Your task to perform on an android device: Open calendar and show me the first week of next month Image 0: 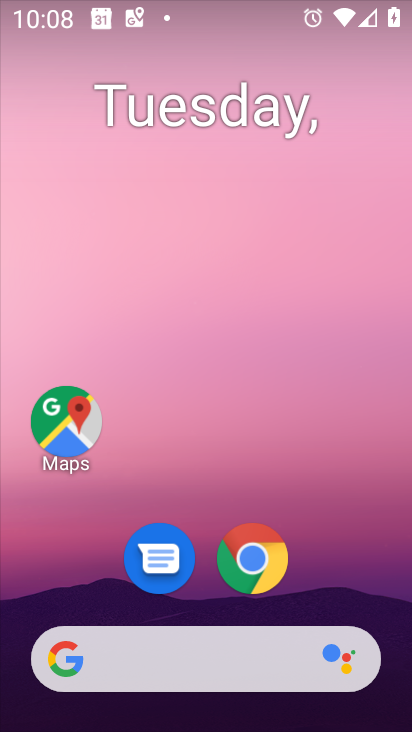
Step 0: drag from (318, 654) to (147, 282)
Your task to perform on an android device: Open calendar and show me the first week of next month Image 1: 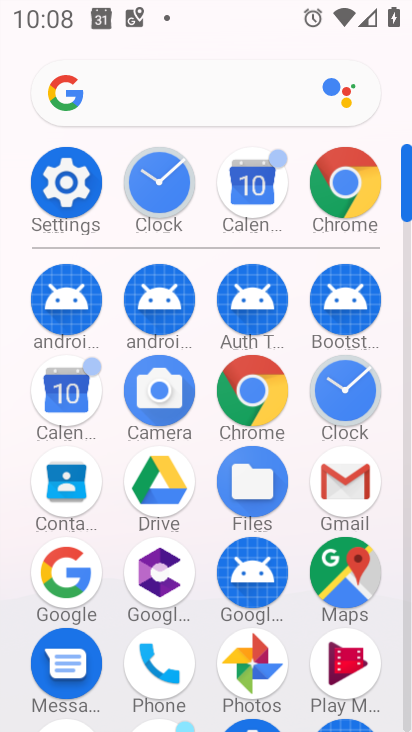
Step 1: click (68, 407)
Your task to perform on an android device: Open calendar and show me the first week of next month Image 2: 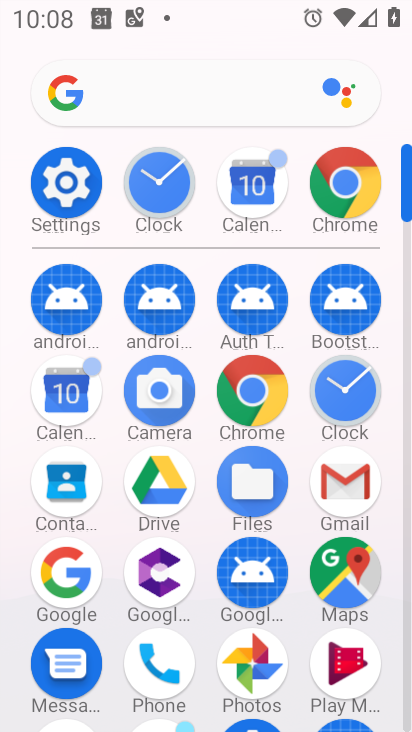
Step 2: click (66, 404)
Your task to perform on an android device: Open calendar and show me the first week of next month Image 3: 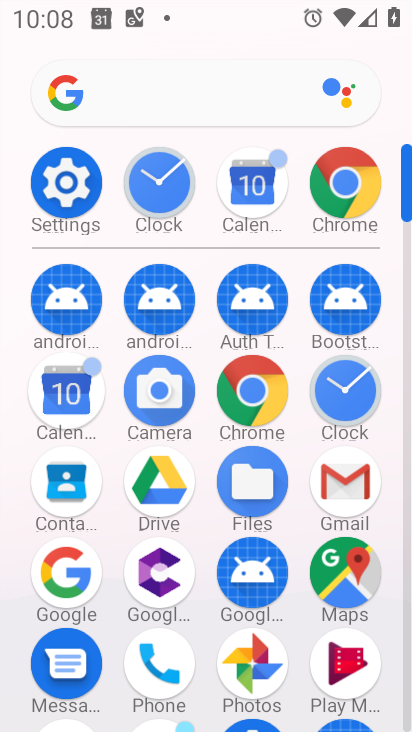
Step 3: click (66, 401)
Your task to perform on an android device: Open calendar and show me the first week of next month Image 4: 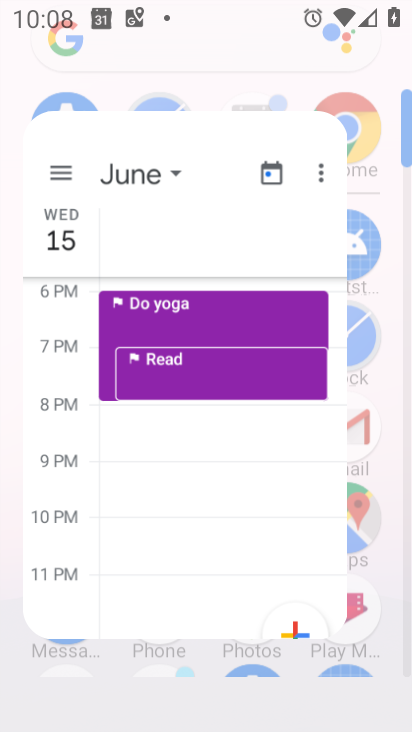
Step 4: click (67, 397)
Your task to perform on an android device: Open calendar and show me the first week of next month Image 5: 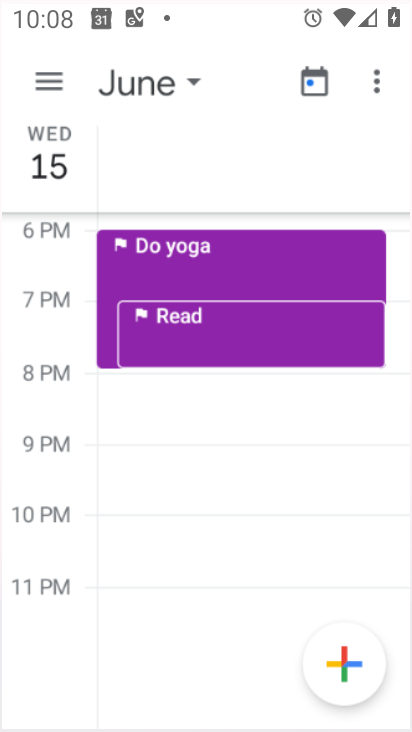
Step 5: click (67, 396)
Your task to perform on an android device: Open calendar and show me the first week of next month Image 6: 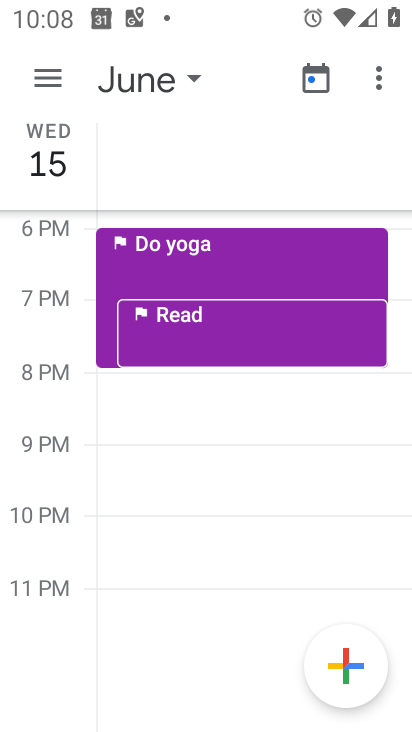
Step 6: click (175, 80)
Your task to perform on an android device: Open calendar and show me the first week of next month Image 7: 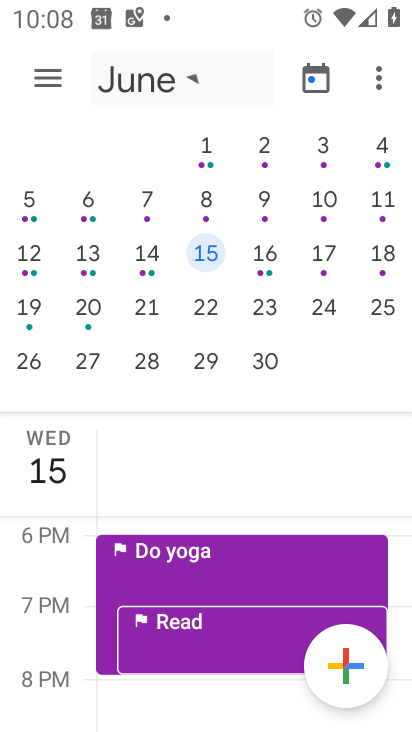
Step 7: click (178, 83)
Your task to perform on an android device: Open calendar and show me the first week of next month Image 8: 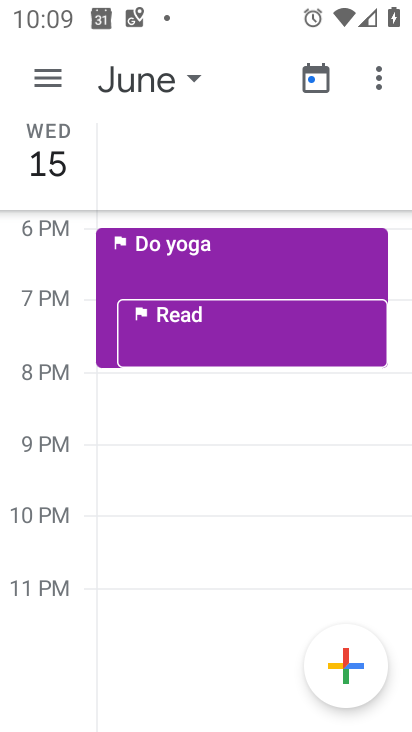
Step 8: click (200, 78)
Your task to perform on an android device: Open calendar and show me the first week of next month Image 9: 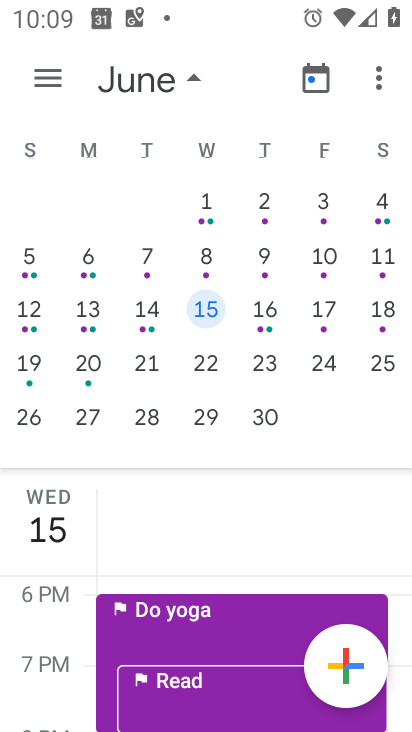
Step 9: task complete